Your task to perform on an android device: toggle wifi Image 0: 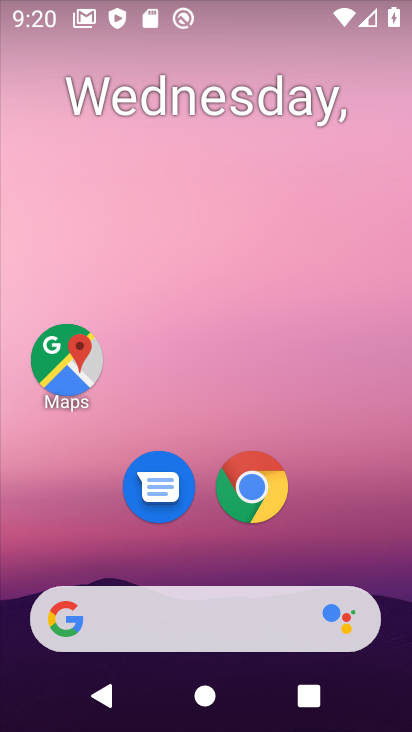
Step 0: drag from (212, 616) to (308, 1)
Your task to perform on an android device: toggle wifi Image 1: 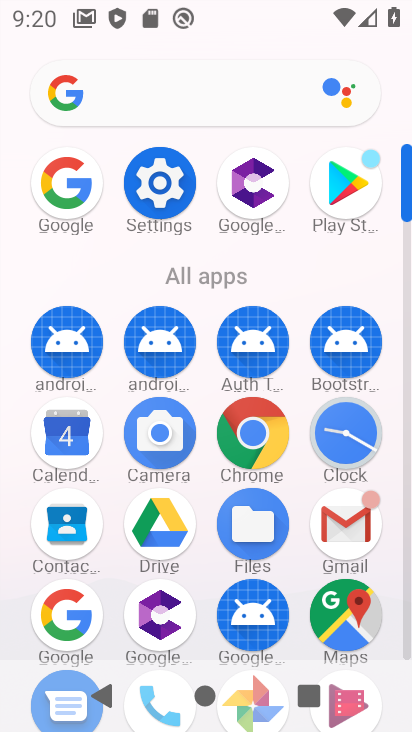
Step 1: click (159, 191)
Your task to perform on an android device: toggle wifi Image 2: 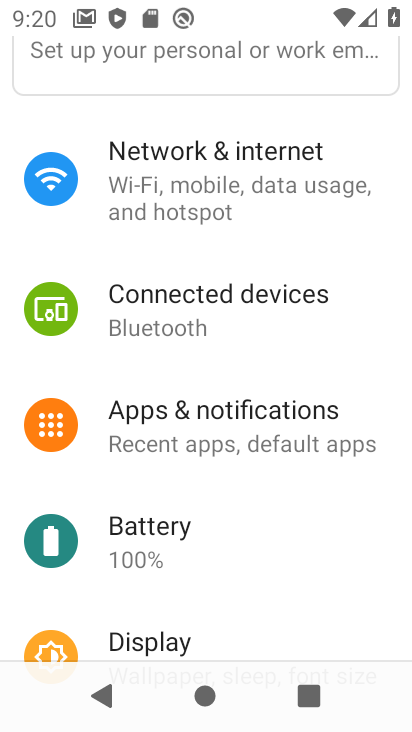
Step 2: click (205, 160)
Your task to perform on an android device: toggle wifi Image 3: 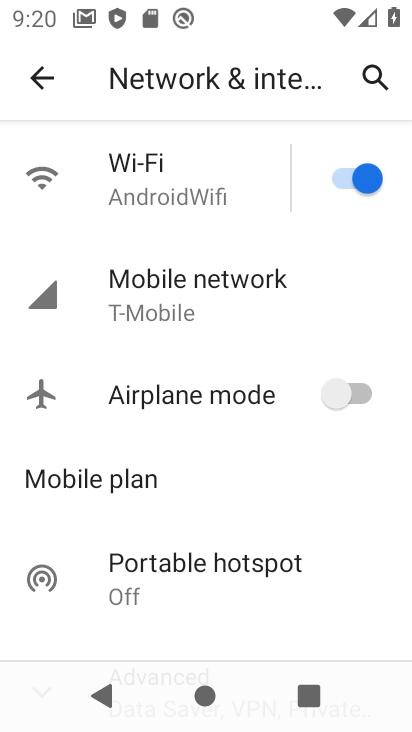
Step 3: click (342, 182)
Your task to perform on an android device: toggle wifi Image 4: 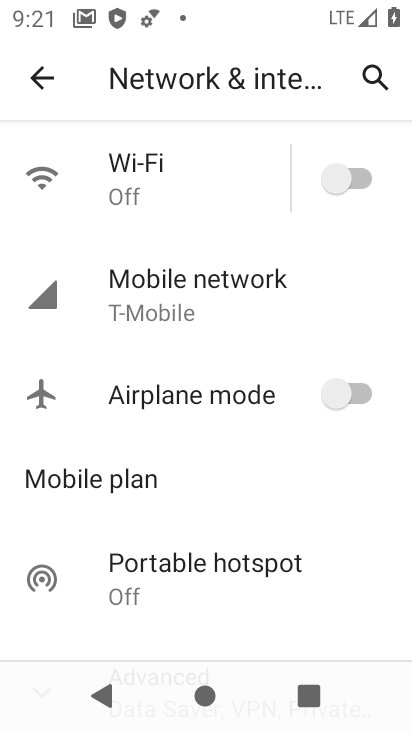
Step 4: task complete